Your task to perform on an android device: What is the recent news? Image 0: 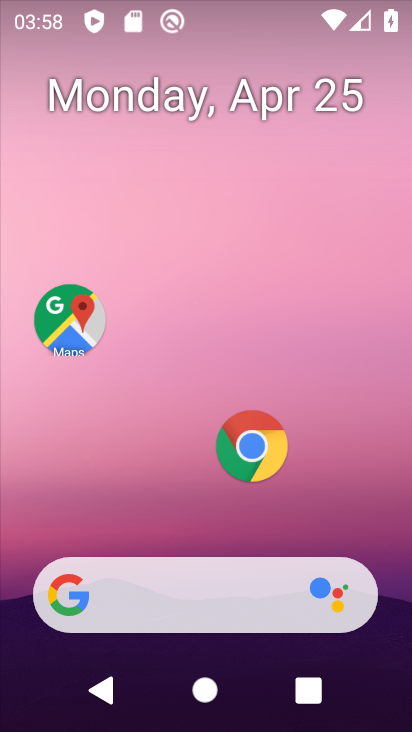
Step 0: click (146, 607)
Your task to perform on an android device: What is the recent news? Image 1: 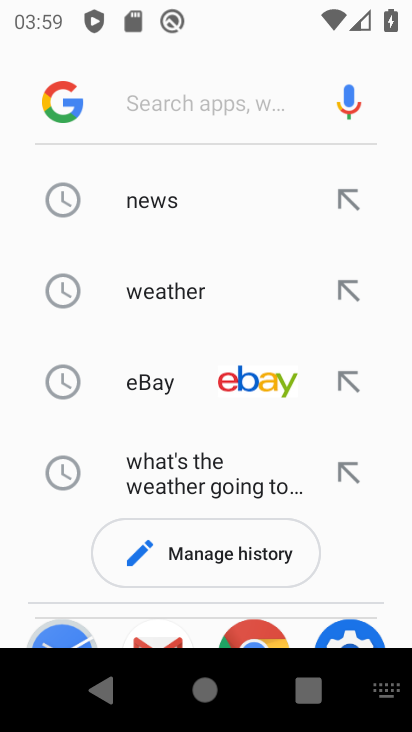
Step 1: click (61, 114)
Your task to perform on an android device: What is the recent news? Image 2: 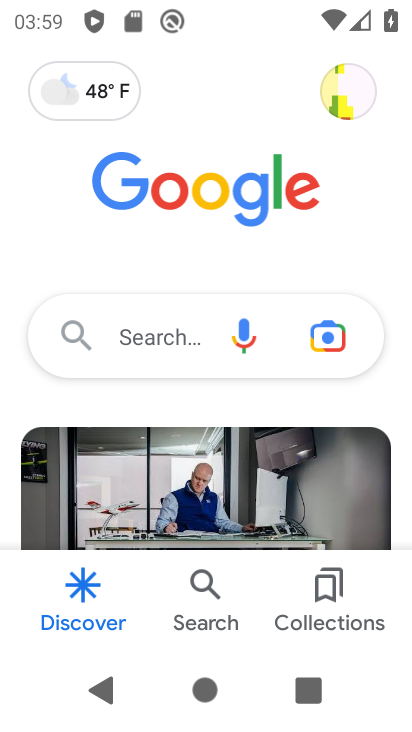
Step 2: task complete